Your task to perform on an android device: Go to Google Image 0: 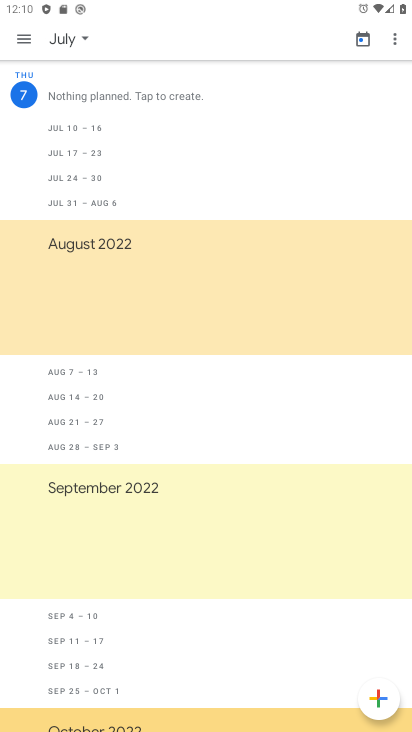
Step 0: click (60, 408)
Your task to perform on an android device: Go to Google Image 1: 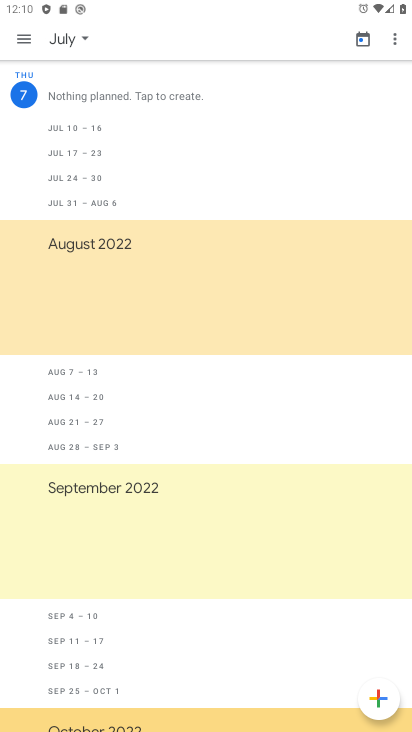
Step 1: press back button
Your task to perform on an android device: Go to Google Image 2: 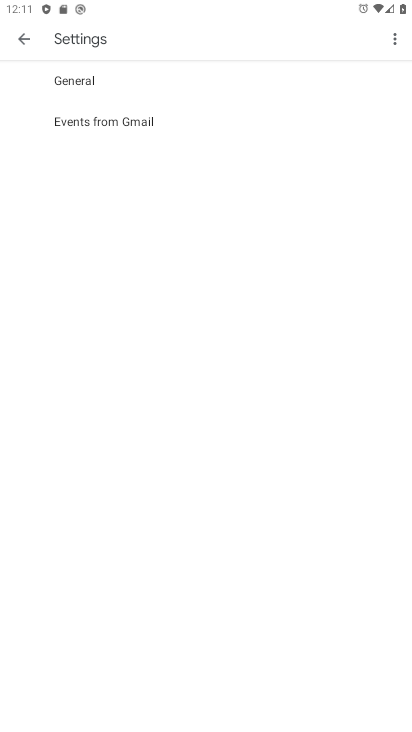
Step 2: press back button
Your task to perform on an android device: Go to Google Image 3: 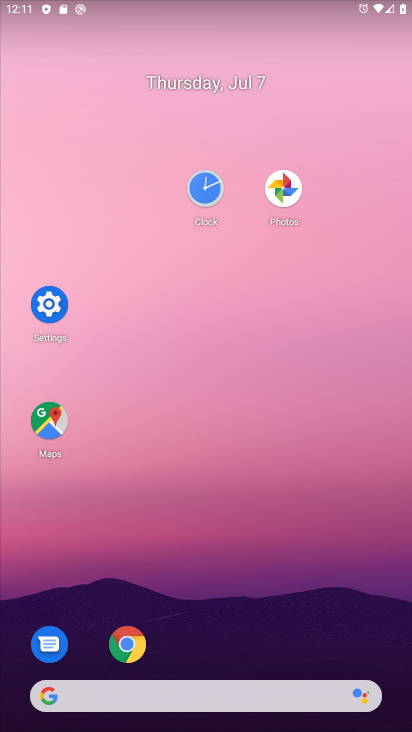
Step 3: drag from (235, 629) to (220, 55)
Your task to perform on an android device: Go to Google Image 4: 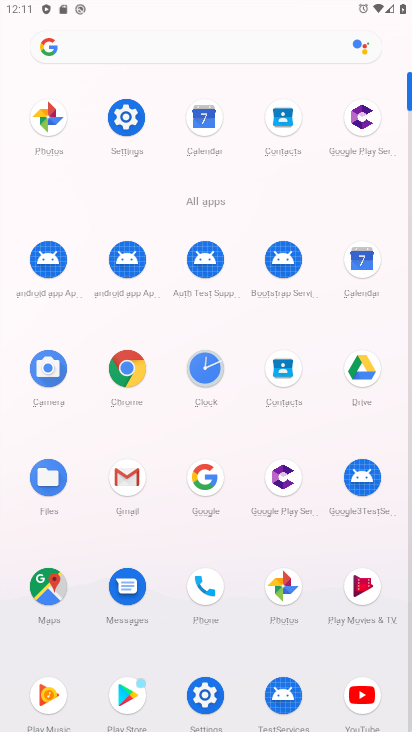
Step 4: click (214, 464)
Your task to perform on an android device: Go to Google Image 5: 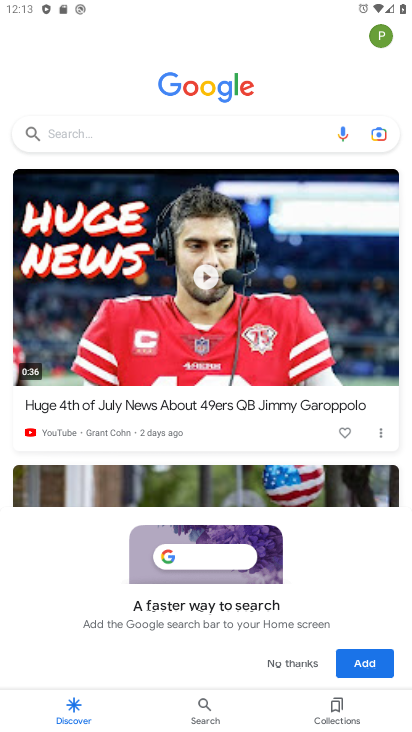
Step 5: task complete